Your task to perform on an android device: turn on the 24-hour format for clock Image 0: 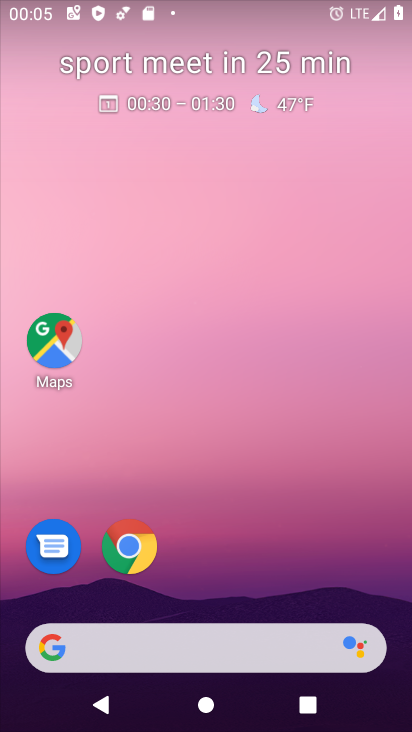
Step 0: drag from (365, 599) to (340, 20)
Your task to perform on an android device: turn on the 24-hour format for clock Image 1: 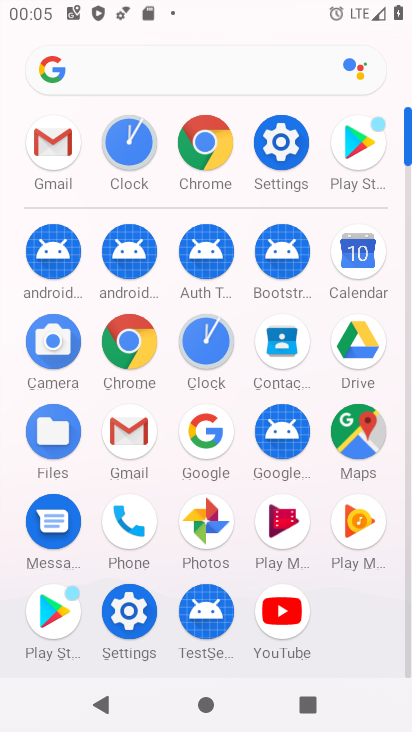
Step 1: click (125, 151)
Your task to perform on an android device: turn on the 24-hour format for clock Image 2: 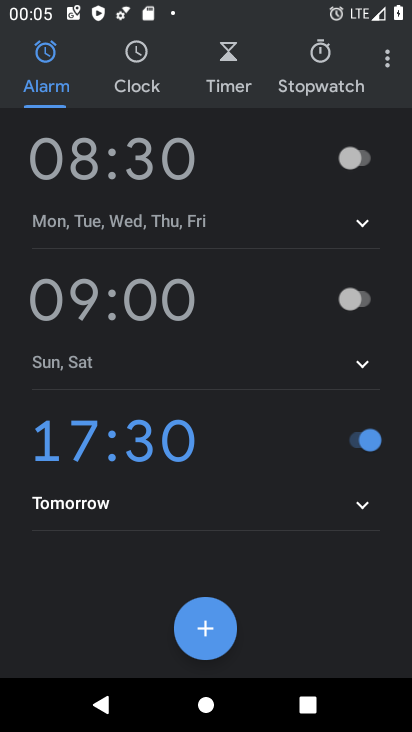
Step 2: click (388, 62)
Your task to perform on an android device: turn on the 24-hour format for clock Image 3: 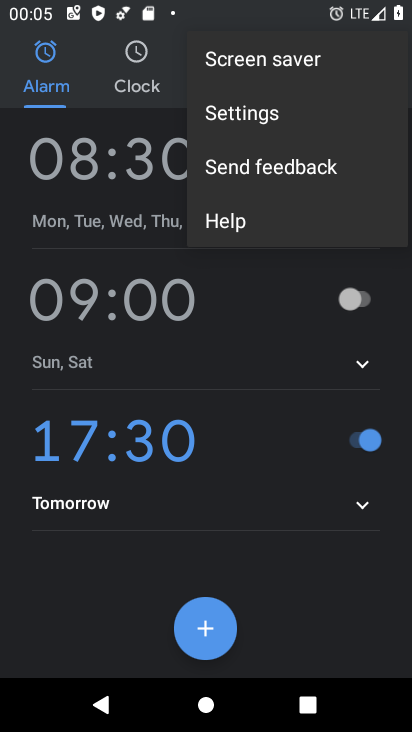
Step 3: click (238, 121)
Your task to perform on an android device: turn on the 24-hour format for clock Image 4: 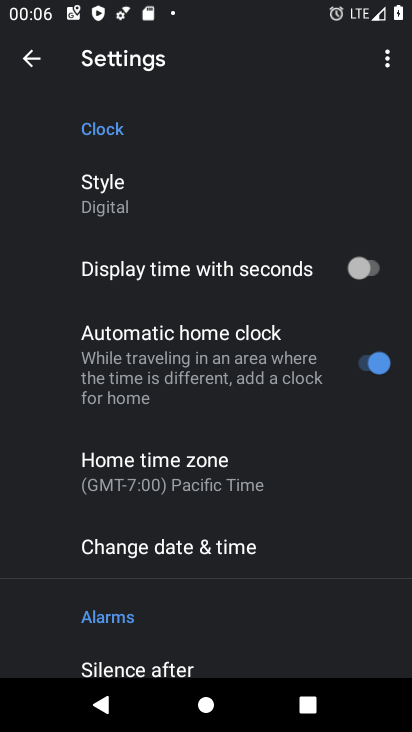
Step 4: click (216, 542)
Your task to perform on an android device: turn on the 24-hour format for clock Image 5: 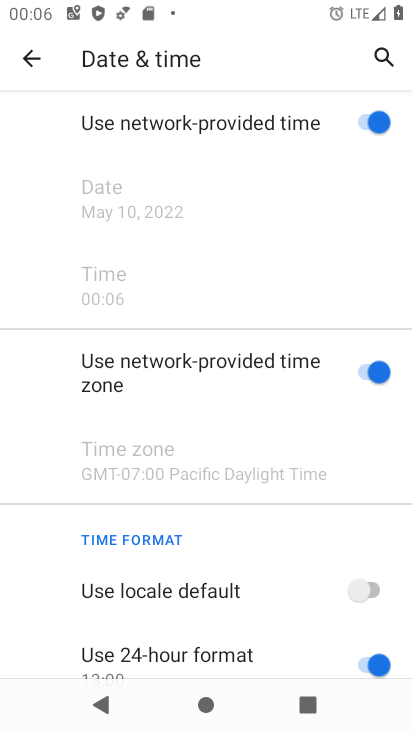
Step 5: task complete